Your task to perform on an android device: Open accessibility settings Image 0: 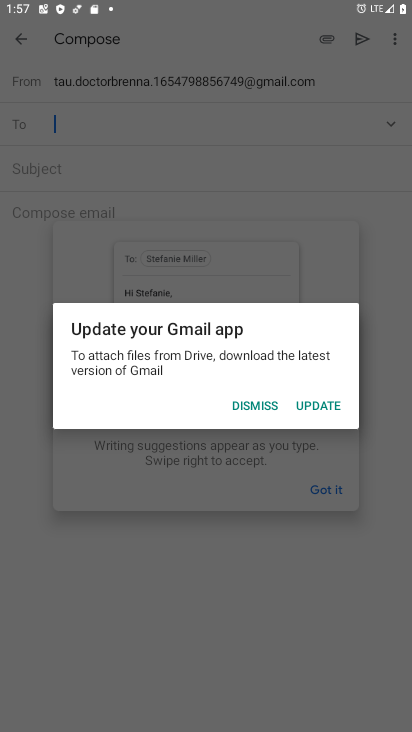
Step 0: press home button
Your task to perform on an android device: Open accessibility settings Image 1: 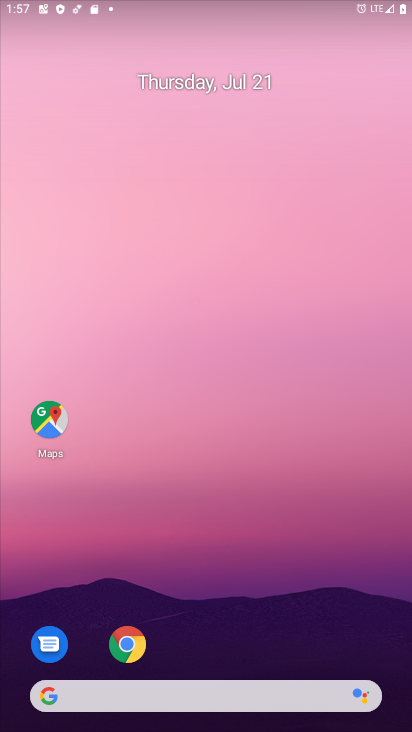
Step 1: drag from (119, 633) to (119, 332)
Your task to perform on an android device: Open accessibility settings Image 2: 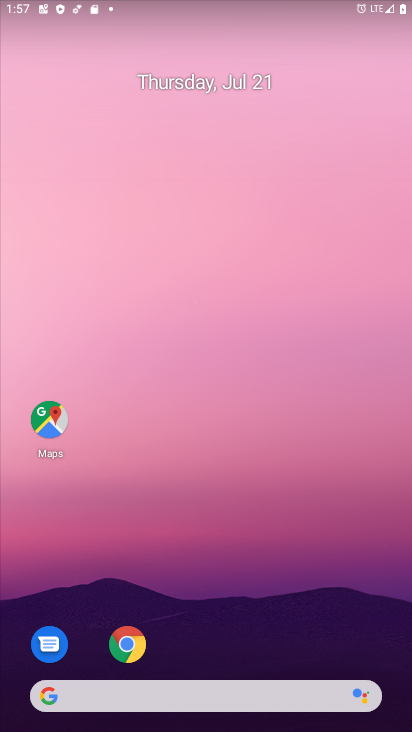
Step 2: drag from (227, 669) to (227, 216)
Your task to perform on an android device: Open accessibility settings Image 3: 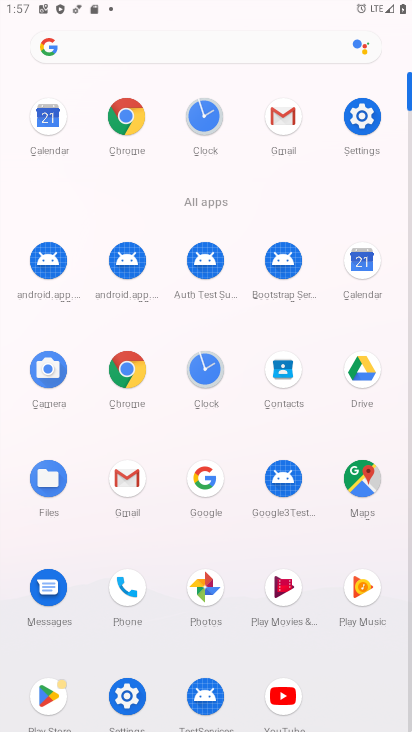
Step 3: click (363, 125)
Your task to perform on an android device: Open accessibility settings Image 4: 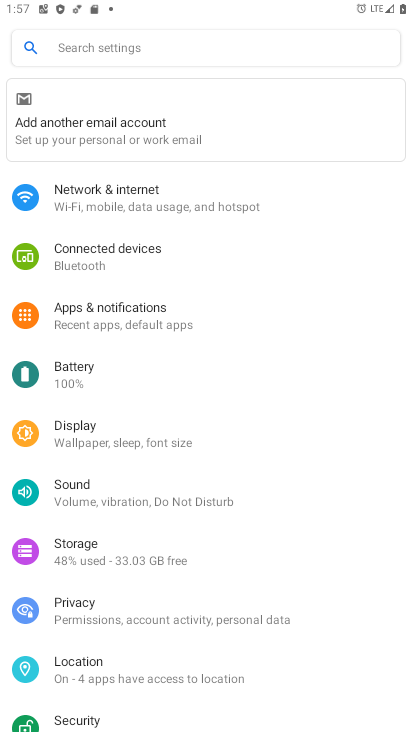
Step 4: drag from (206, 566) to (206, 251)
Your task to perform on an android device: Open accessibility settings Image 5: 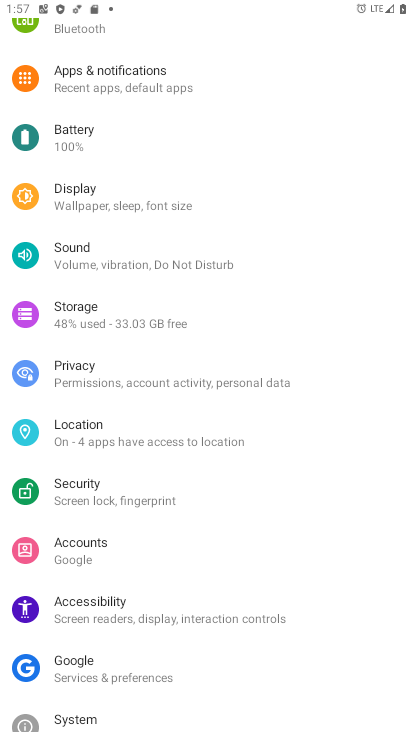
Step 5: click (152, 624)
Your task to perform on an android device: Open accessibility settings Image 6: 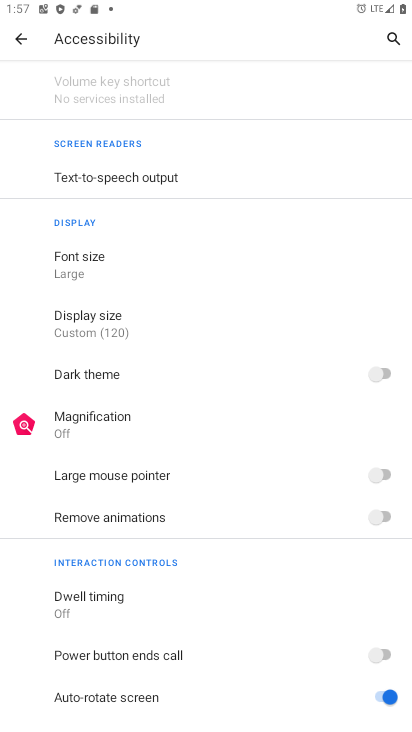
Step 6: task complete